Your task to perform on an android device: What's the weather? Image 0: 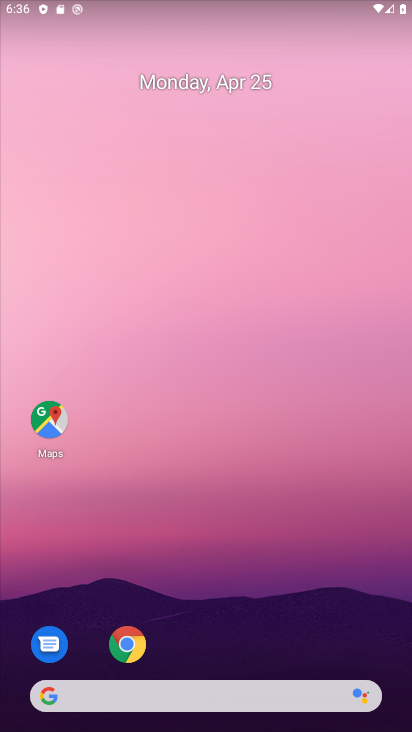
Step 0: drag from (271, 627) to (282, 71)
Your task to perform on an android device: What's the weather? Image 1: 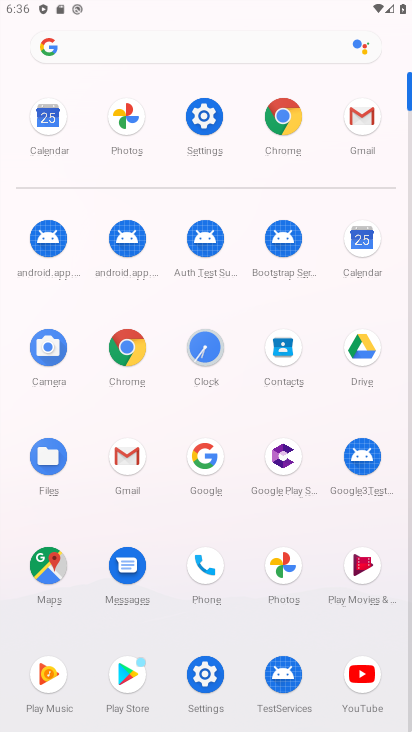
Step 1: click (211, 453)
Your task to perform on an android device: What's the weather? Image 2: 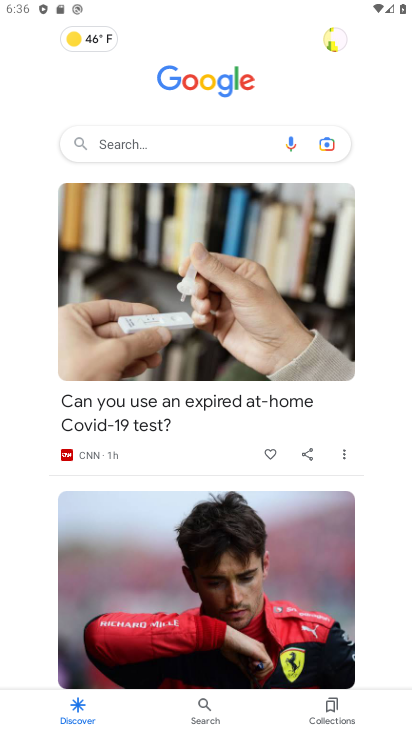
Step 2: click (93, 40)
Your task to perform on an android device: What's the weather? Image 3: 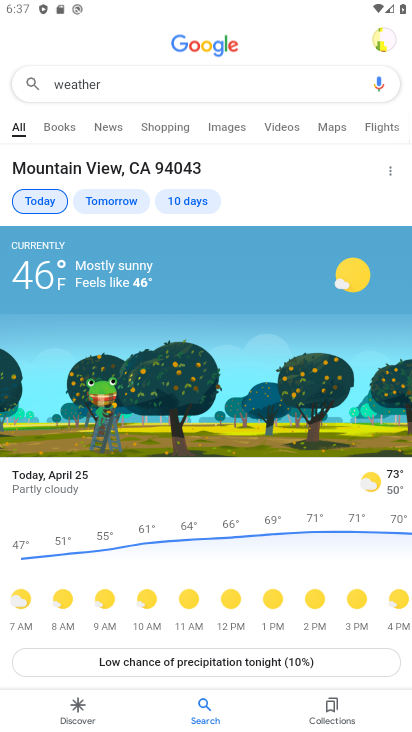
Step 3: task complete